Your task to perform on an android device: turn vacation reply on in the gmail app Image 0: 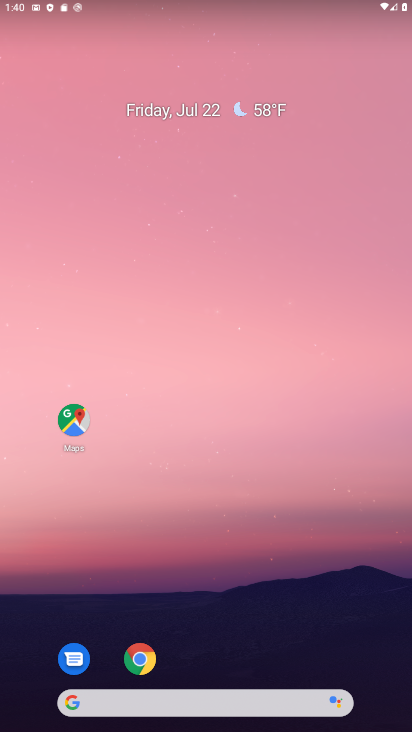
Step 0: drag from (225, 668) to (216, 93)
Your task to perform on an android device: turn vacation reply on in the gmail app Image 1: 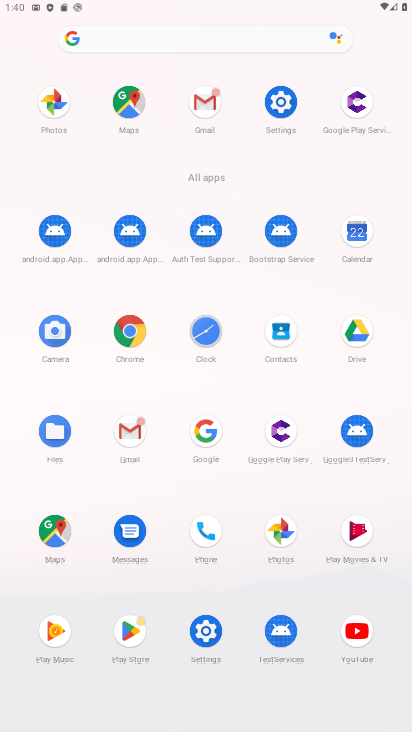
Step 1: click (131, 433)
Your task to perform on an android device: turn vacation reply on in the gmail app Image 2: 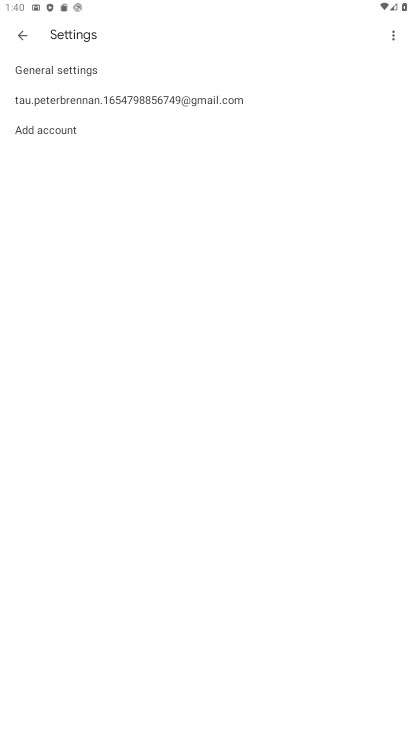
Step 2: click (60, 88)
Your task to perform on an android device: turn vacation reply on in the gmail app Image 3: 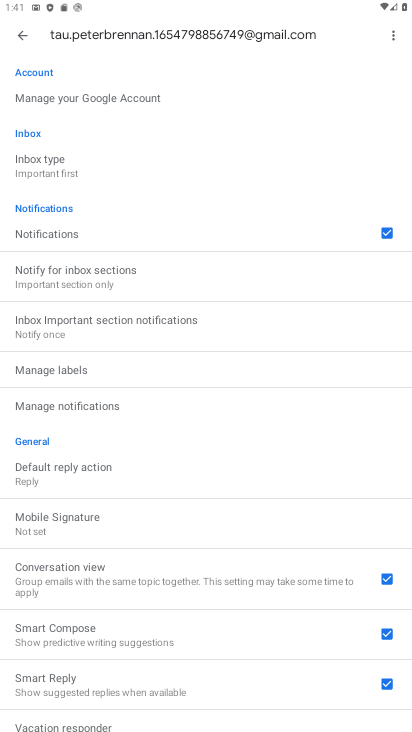
Step 3: drag from (143, 632) to (103, 261)
Your task to perform on an android device: turn vacation reply on in the gmail app Image 4: 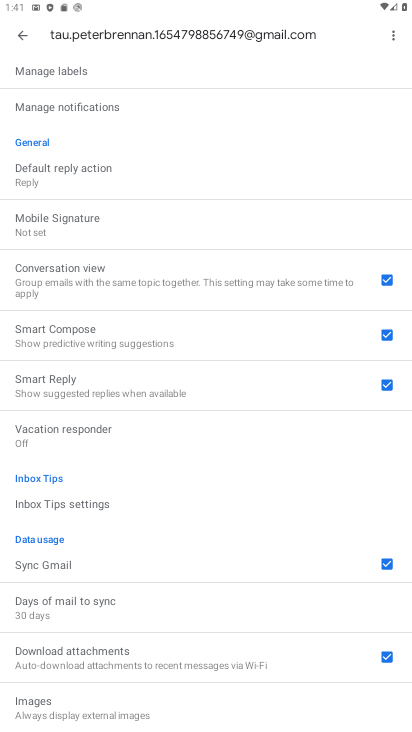
Step 4: click (85, 432)
Your task to perform on an android device: turn vacation reply on in the gmail app Image 5: 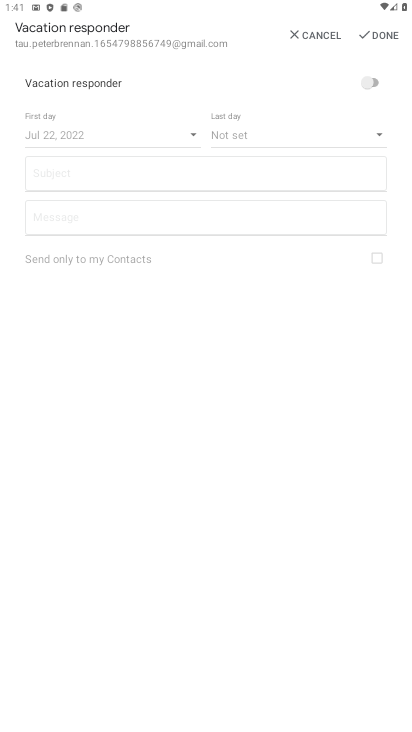
Step 5: click (385, 82)
Your task to perform on an android device: turn vacation reply on in the gmail app Image 6: 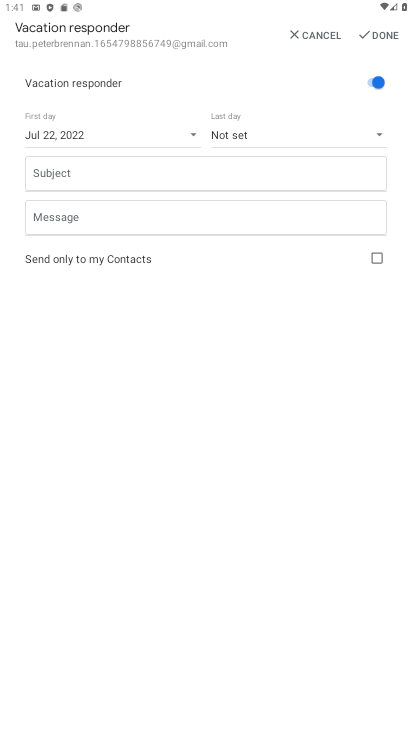
Step 6: click (379, 37)
Your task to perform on an android device: turn vacation reply on in the gmail app Image 7: 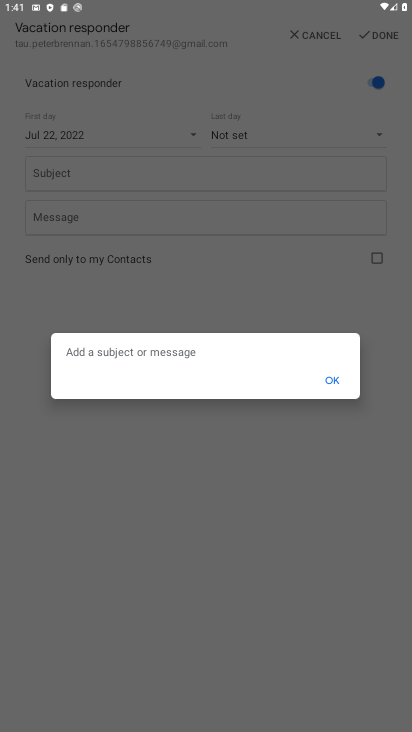
Step 7: task complete